Your task to perform on an android device: delete the emails in spam in the gmail app Image 0: 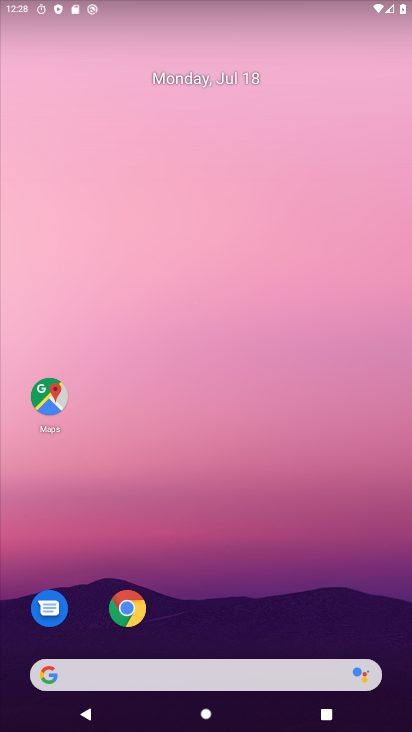
Step 0: drag from (334, 574) to (392, 22)
Your task to perform on an android device: delete the emails in spam in the gmail app Image 1: 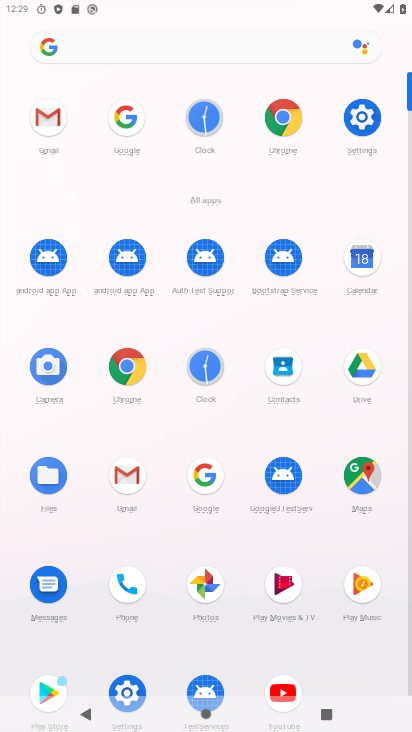
Step 1: click (46, 114)
Your task to perform on an android device: delete the emails in spam in the gmail app Image 2: 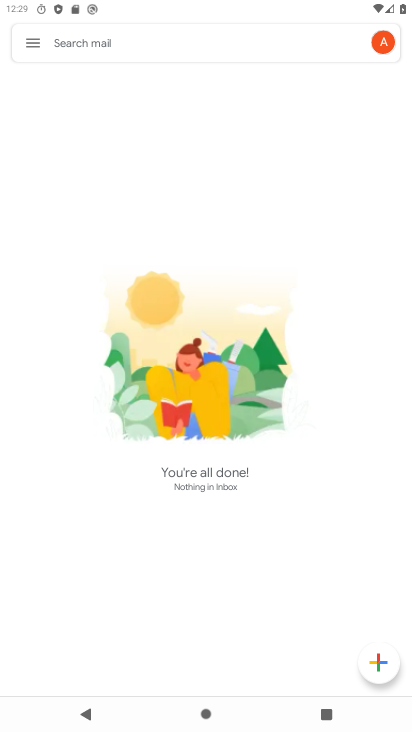
Step 2: task complete